Your task to perform on an android device: Go to Amazon Image 0: 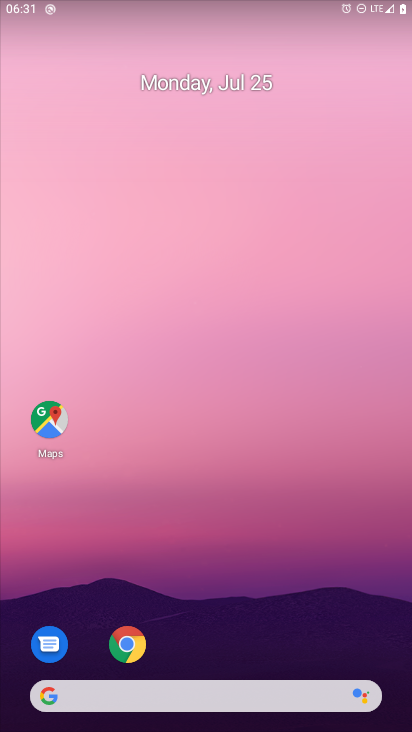
Step 0: press home button
Your task to perform on an android device: Go to Amazon Image 1: 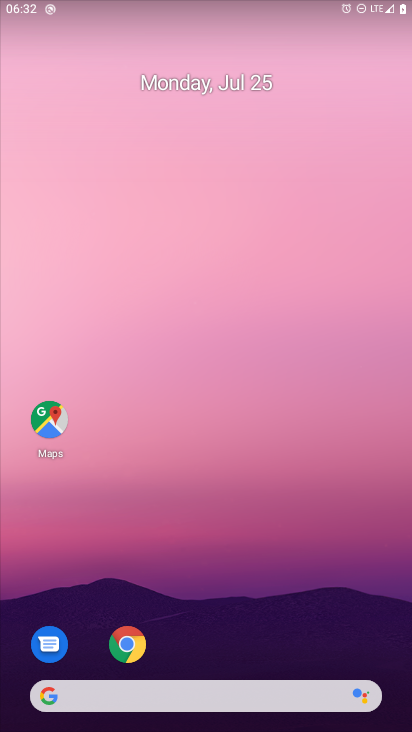
Step 1: click (43, 701)
Your task to perform on an android device: Go to Amazon Image 2: 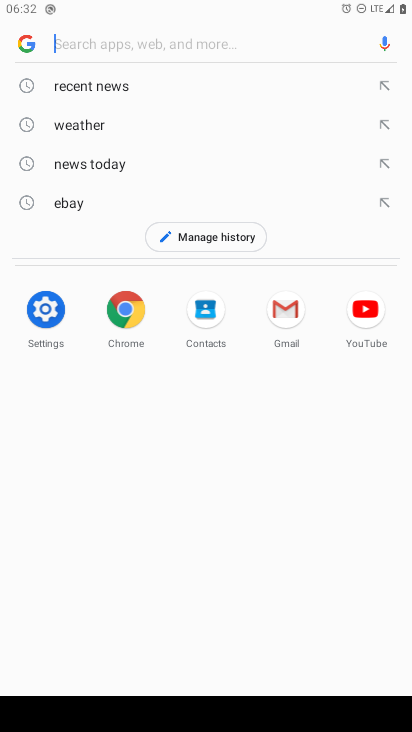
Step 2: type "Amazon"
Your task to perform on an android device: Go to Amazon Image 3: 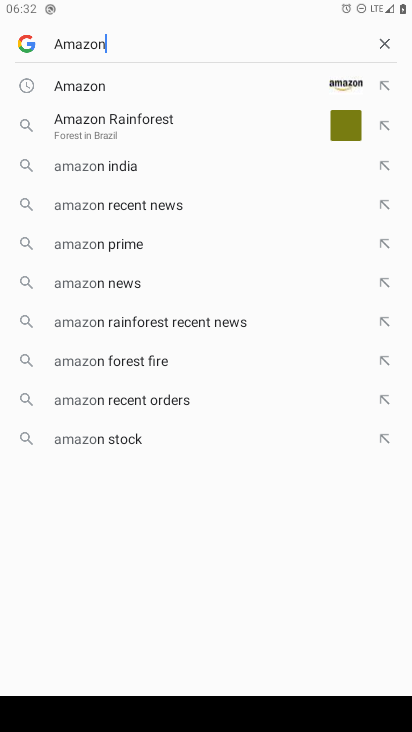
Step 3: press enter
Your task to perform on an android device: Go to Amazon Image 4: 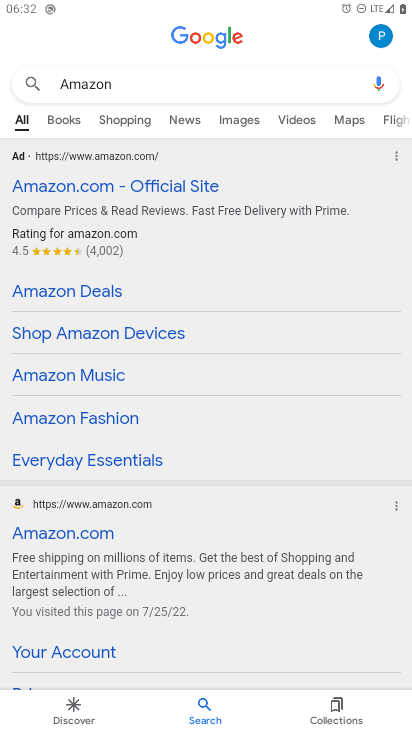
Step 4: click (103, 186)
Your task to perform on an android device: Go to Amazon Image 5: 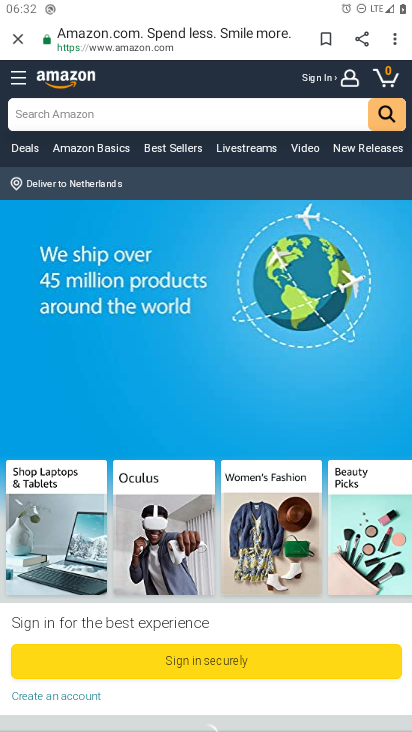
Step 5: task complete